Your task to perform on an android device: toggle notification dots Image 0: 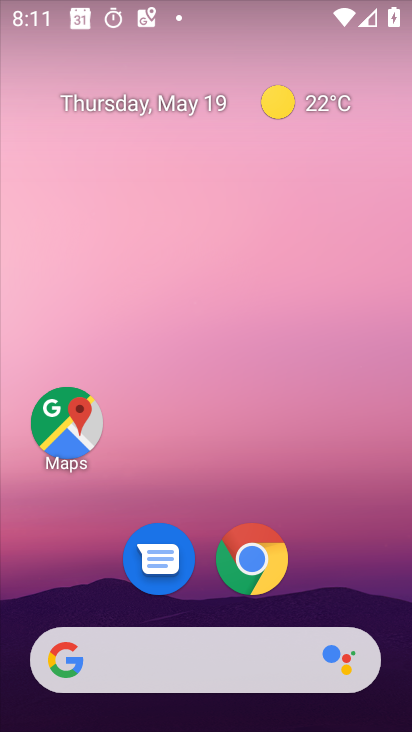
Step 0: drag from (316, 587) to (367, 4)
Your task to perform on an android device: toggle notification dots Image 1: 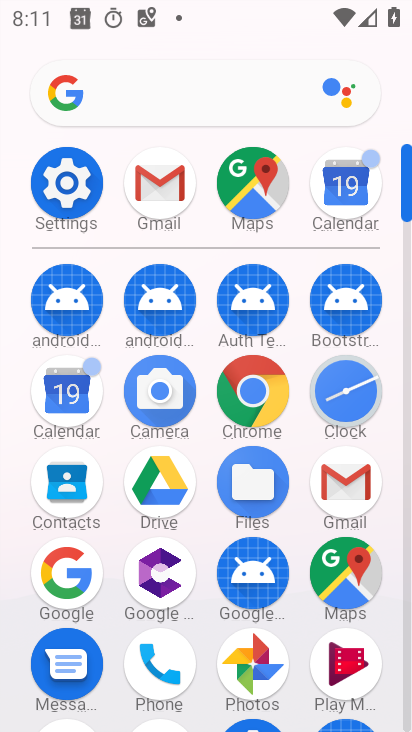
Step 1: click (78, 182)
Your task to perform on an android device: toggle notification dots Image 2: 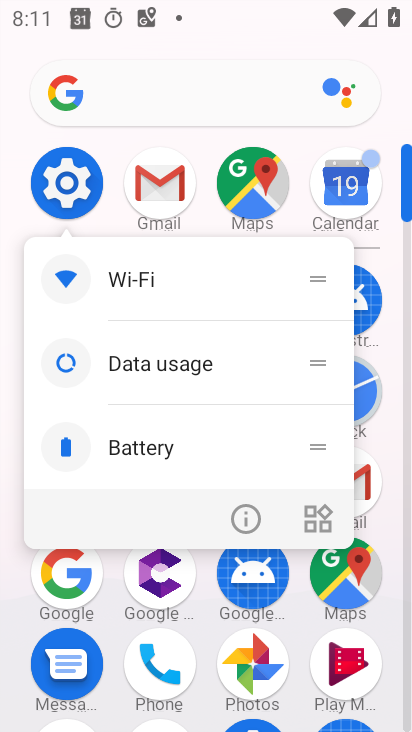
Step 2: click (78, 181)
Your task to perform on an android device: toggle notification dots Image 3: 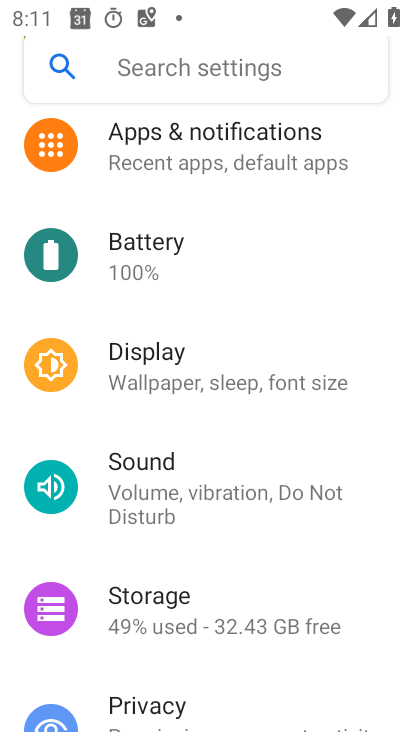
Step 3: click (135, 148)
Your task to perform on an android device: toggle notification dots Image 4: 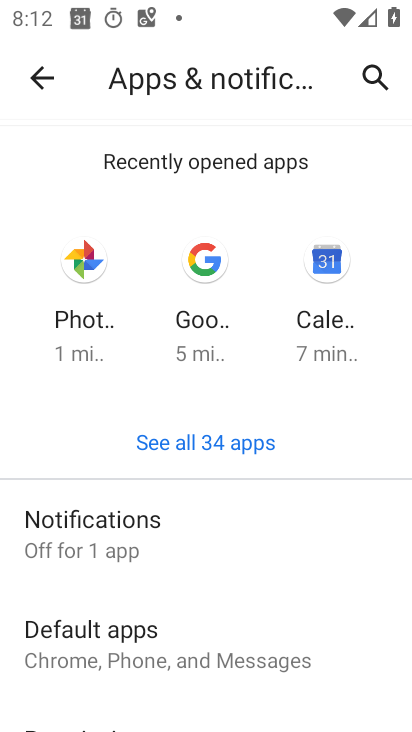
Step 4: click (197, 522)
Your task to perform on an android device: toggle notification dots Image 5: 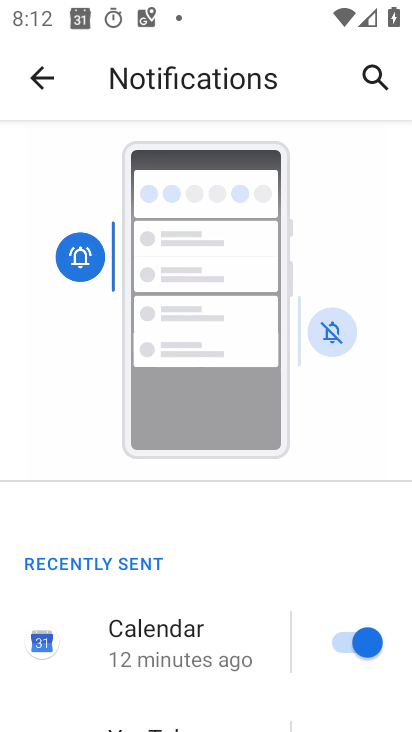
Step 5: drag from (181, 641) to (145, 152)
Your task to perform on an android device: toggle notification dots Image 6: 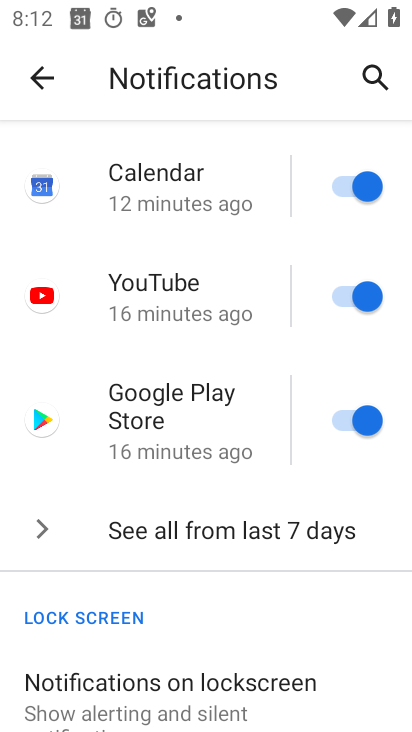
Step 6: drag from (128, 685) to (175, 152)
Your task to perform on an android device: toggle notification dots Image 7: 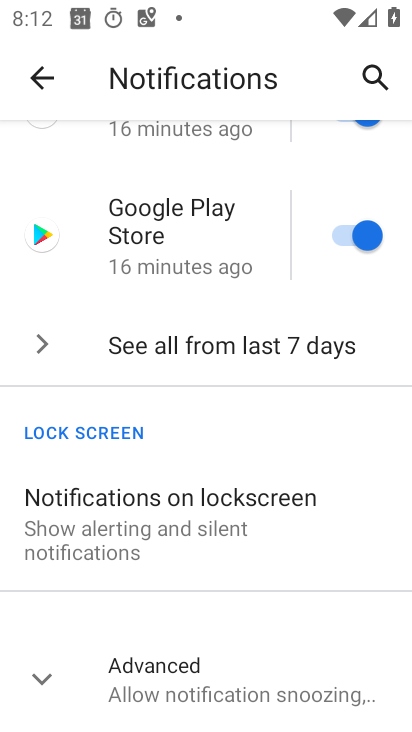
Step 7: click (238, 665)
Your task to perform on an android device: toggle notification dots Image 8: 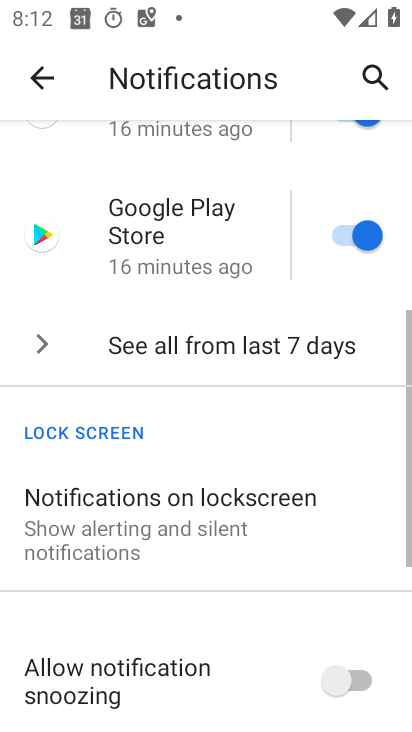
Step 8: drag from (208, 651) to (250, 73)
Your task to perform on an android device: toggle notification dots Image 9: 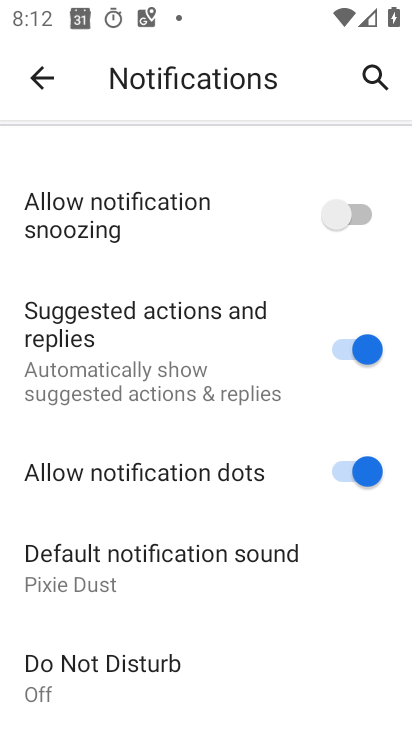
Step 9: click (347, 466)
Your task to perform on an android device: toggle notification dots Image 10: 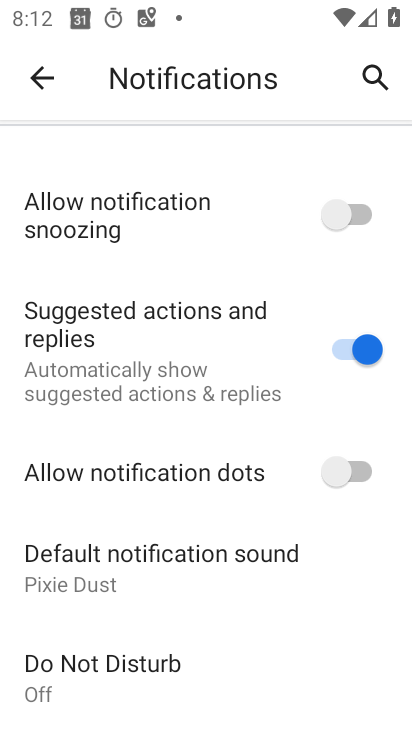
Step 10: task complete